Your task to perform on an android device: Open Reddit.com Image 0: 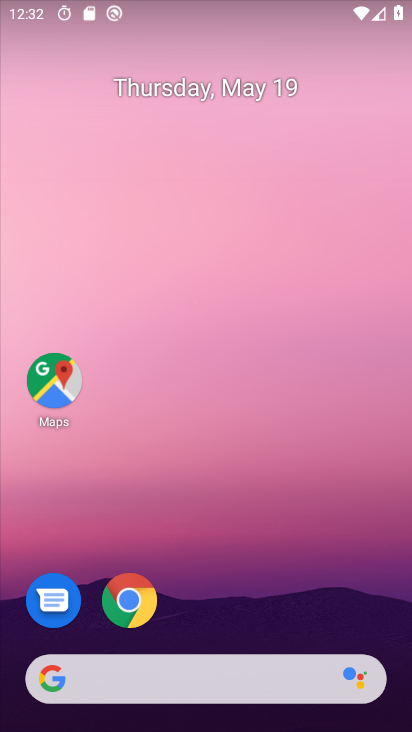
Step 0: click (127, 596)
Your task to perform on an android device: Open Reddit.com Image 1: 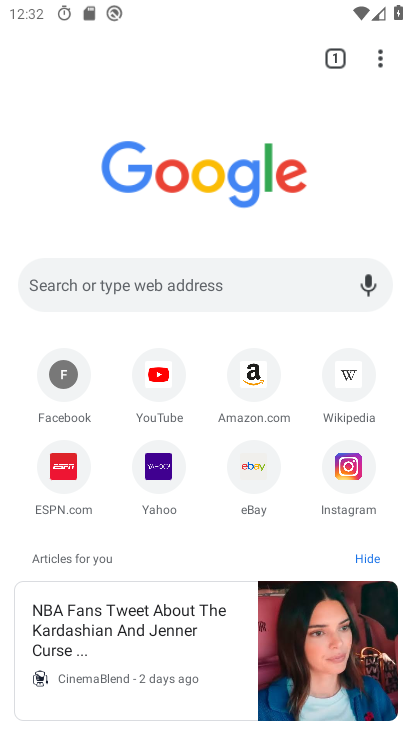
Step 1: click (175, 288)
Your task to perform on an android device: Open Reddit.com Image 2: 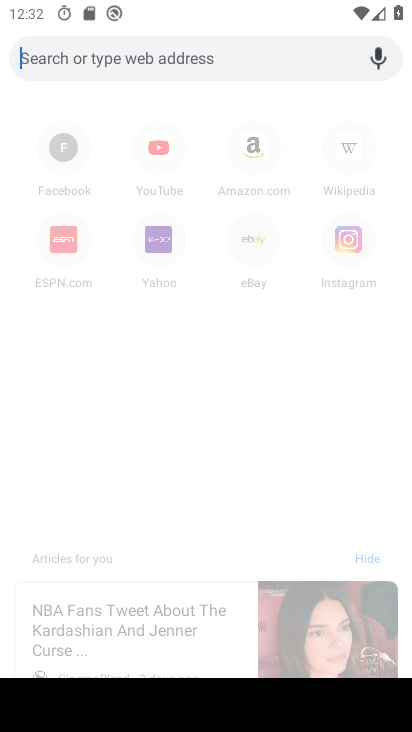
Step 2: type "Reddit.com"
Your task to perform on an android device: Open Reddit.com Image 3: 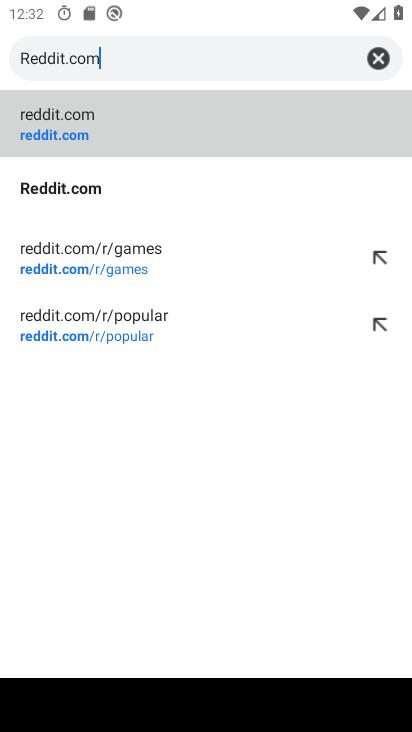
Step 3: click (155, 145)
Your task to perform on an android device: Open Reddit.com Image 4: 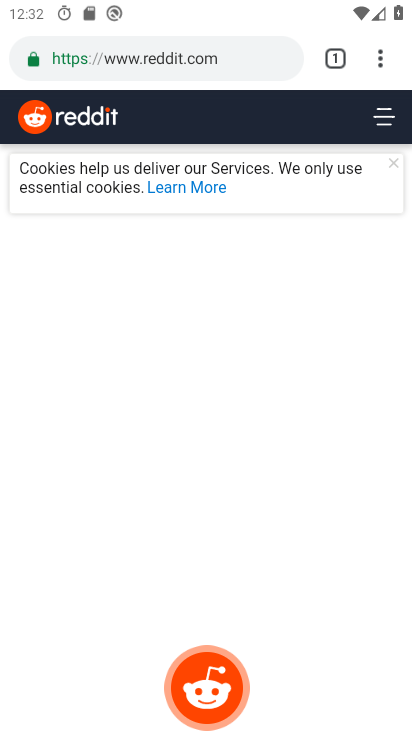
Step 4: task complete